Your task to perform on an android device: allow cookies in the chrome app Image 0: 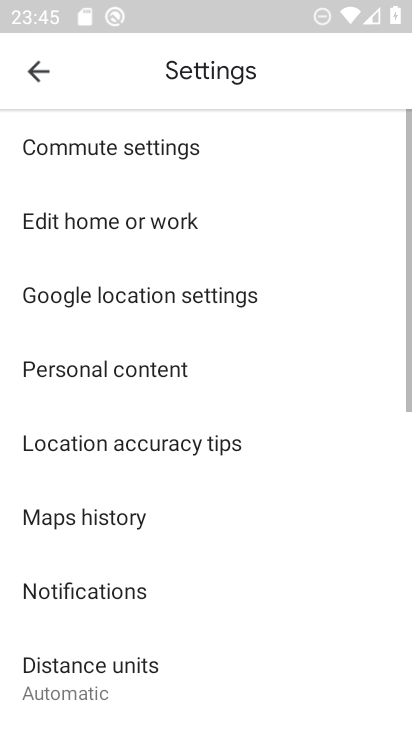
Step 0: press home button
Your task to perform on an android device: allow cookies in the chrome app Image 1: 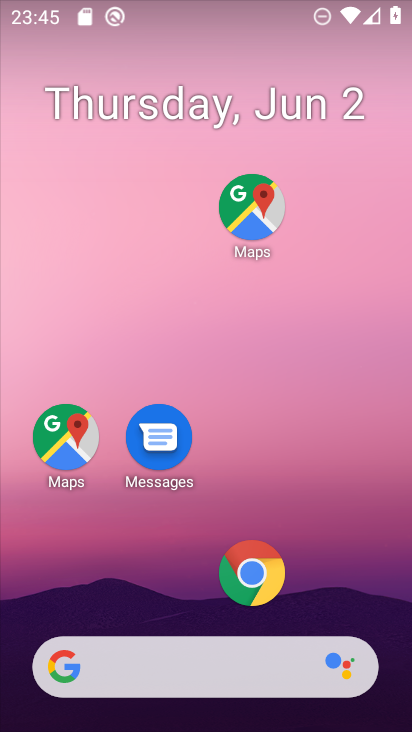
Step 1: click (243, 575)
Your task to perform on an android device: allow cookies in the chrome app Image 2: 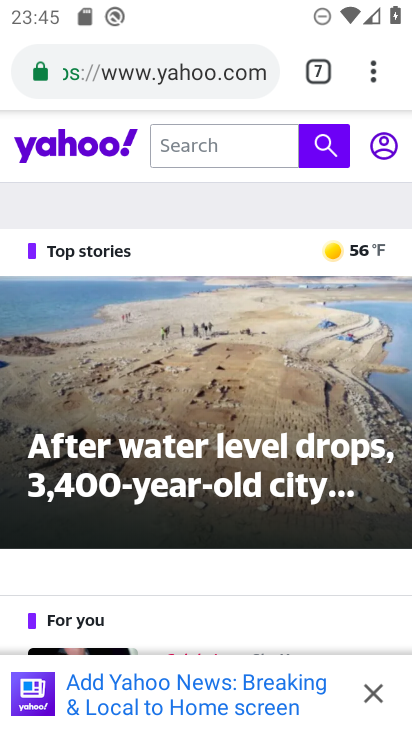
Step 2: click (375, 64)
Your task to perform on an android device: allow cookies in the chrome app Image 3: 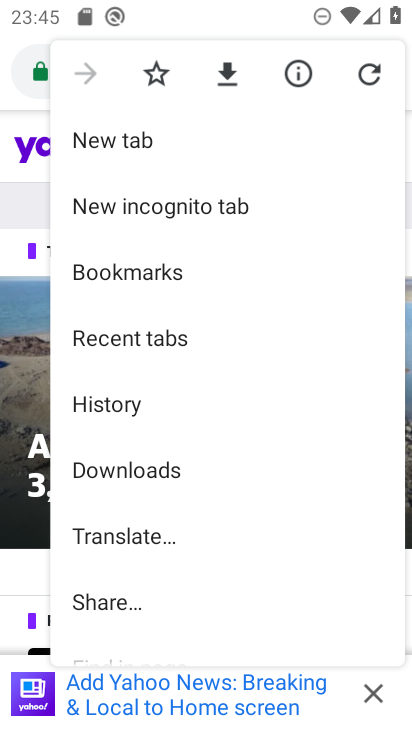
Step 3: drag from (249, 506) to (224, 182)
Your task to perform on an android device: allow cookies in the chrome app Image 4: 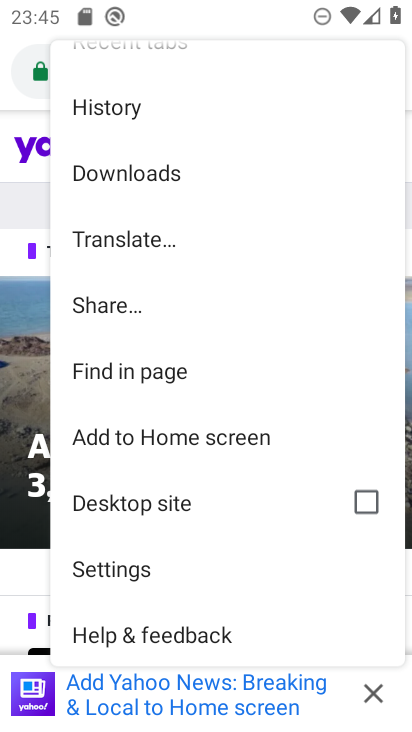
Step 4: click (179, 567)
Your task to perform on an android device: allow cookies in the chrome app Image 5: 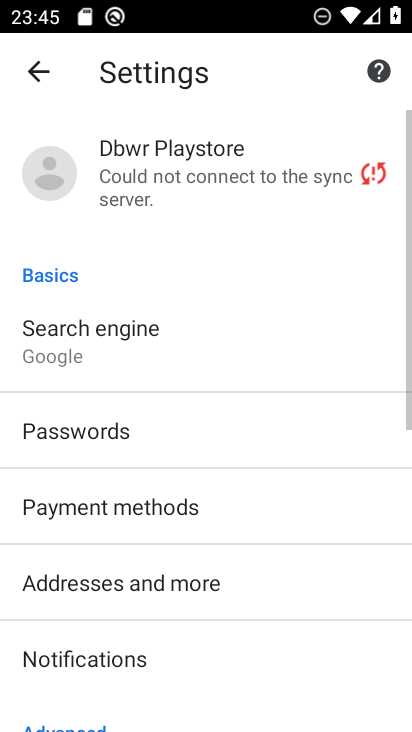
Step 5: drag from (162, 542) to (156, 218)
Your task to perform on an android device: allow cookies in the chrome app Image 6: 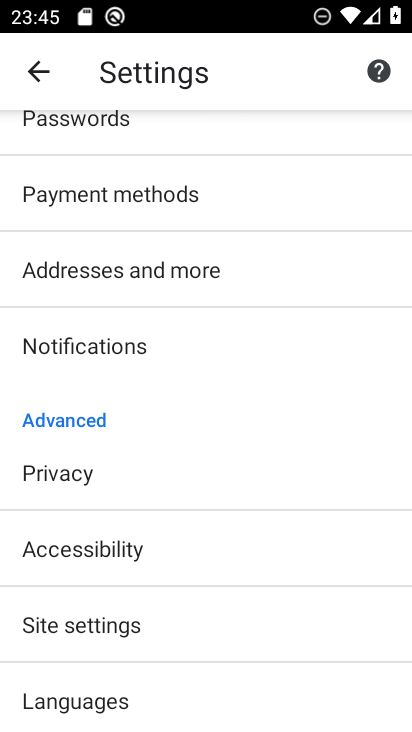
Step 6: click (119, 623)
Your task to perform on an android device: allow cookies in the chrome app Image 7: 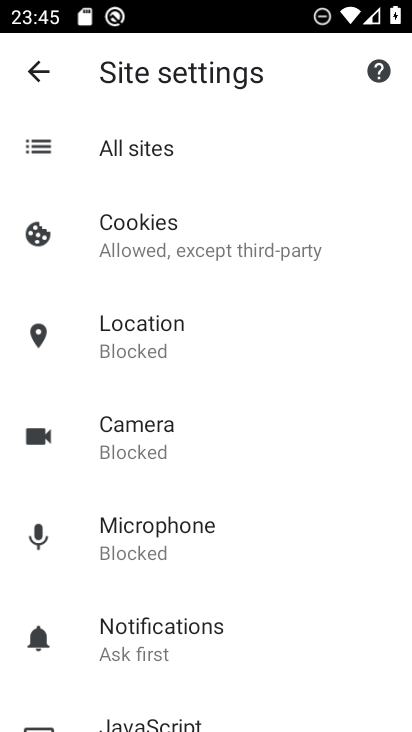
Step 7: click (130, 252)
Your task to perform on an android device: allow cookies in the chrome app Image 8: 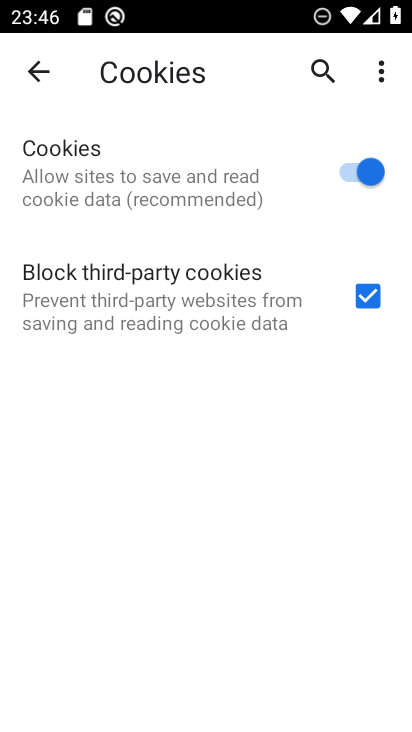
Step 8: task complete